Your task to perform on an android device: turn on priority inbox in the gmail app Image 0: 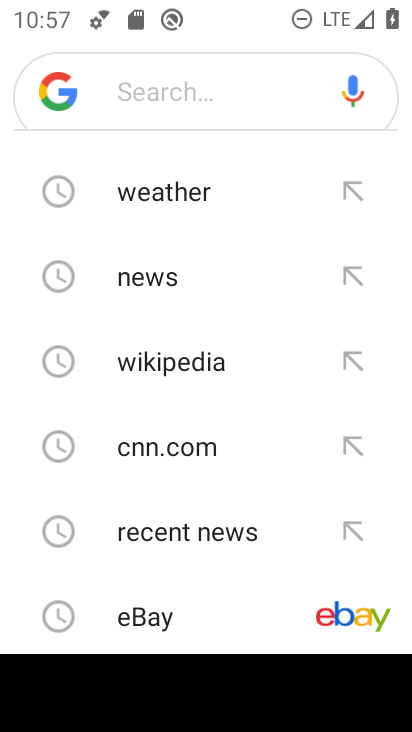
Step 0: press back button
Your task to perform on an android device: turn on priority inbox in the gmail app Image 1: 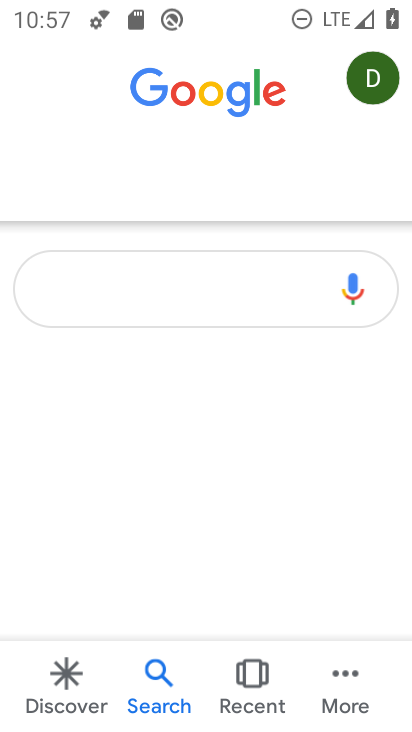
Step 1: press back button
Your task to perform on an android device: turn on priority inbox in the gmail app Image 2: 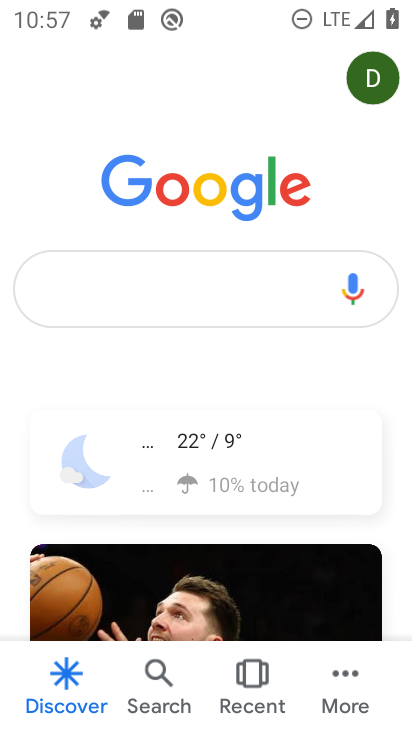
Step 2: press back button
Your task to perform on an android device: turn on priority inbox in the gmail app Image 3: 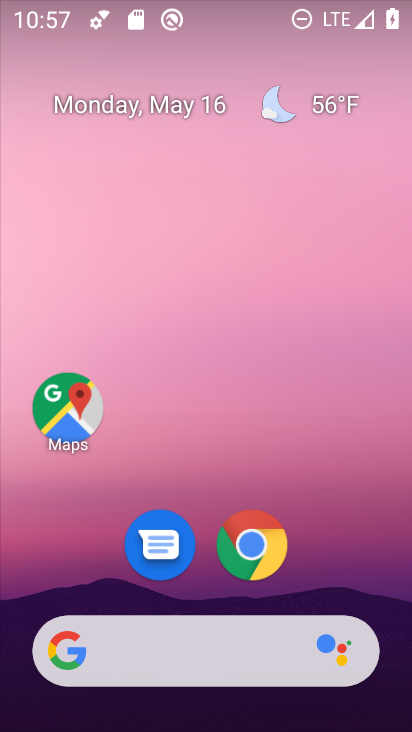
Step 3: drag from (328, 581) to (236, 155)
Your task to perform on an android device: turn on priority inbox in the gmail app Image 4: 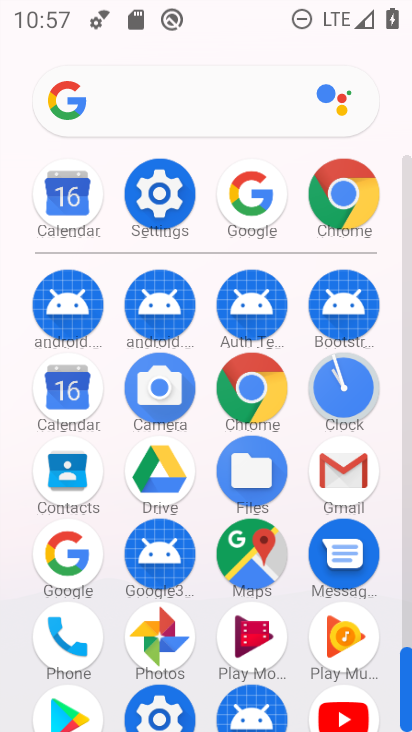
Step 4: click (343, 471)
Your task to perform on an android device: turn on priority inbox in the gmail app Image 5: 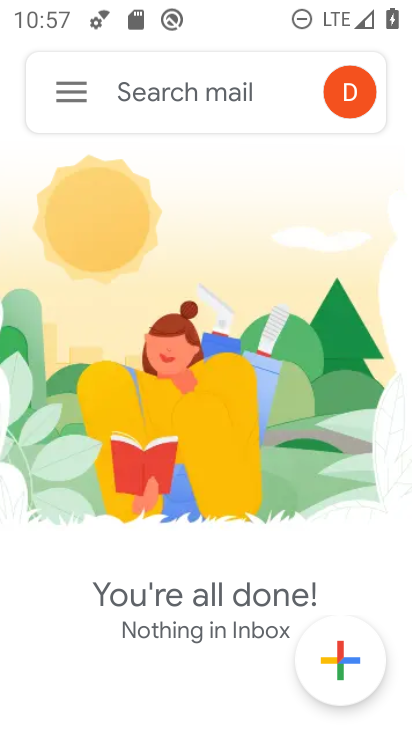
Step 5: click (60, 90)
Your task to perform on an android device: turn on priority inbox in the gmail app Image 6: 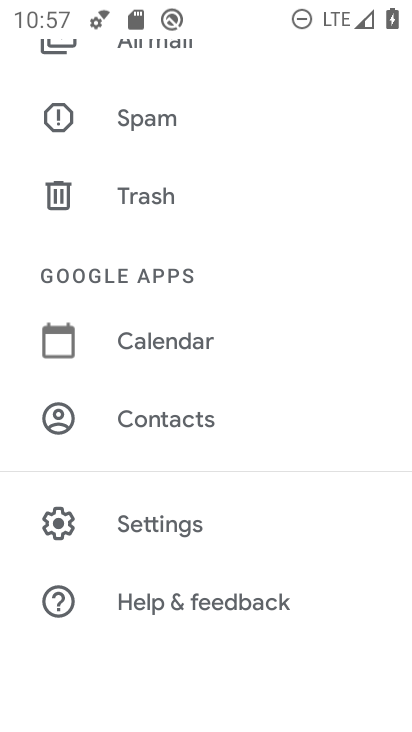
Step 6: click (150, 520)
Your task to perform on an android device: turn on priority inbox in the gmail app Image 7: 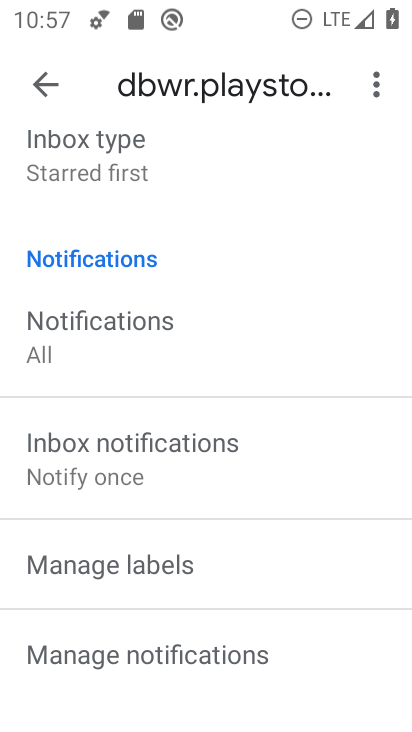
Step 7: drag from (107, 226) to (151, 456)
Your task to perform on an android device: turn on priority inbox in the gmail app Image 8: 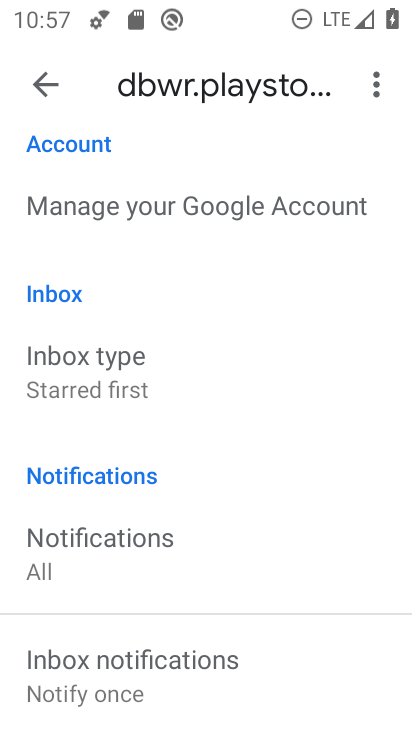
Step 8: click (104, 359)
Your task to perform on an android device: turn on priority inbox in the gmail app Image 9: 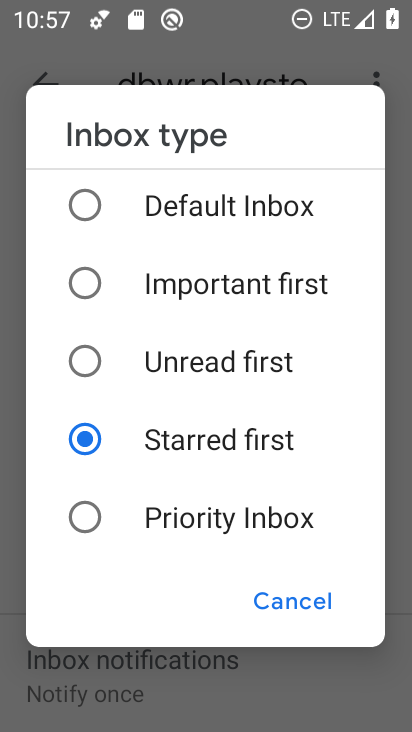
Step 9: click (86, 520)
Your task to perform on an android device: turn on priority inbox in the gmail app Image 10: 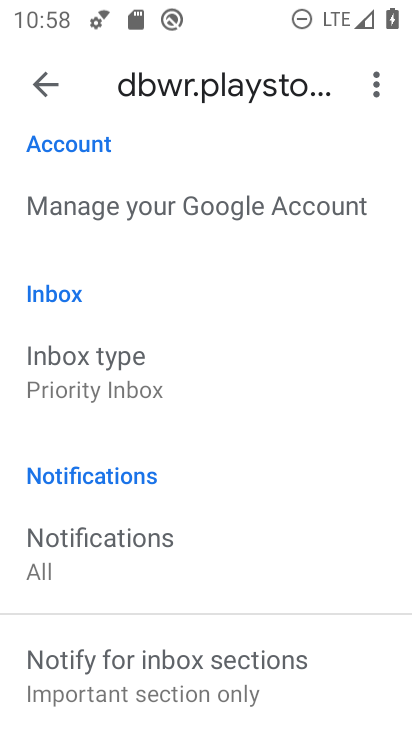
Step 10: task complete